Your task to perform on an android device: Open battery settings Image 0: 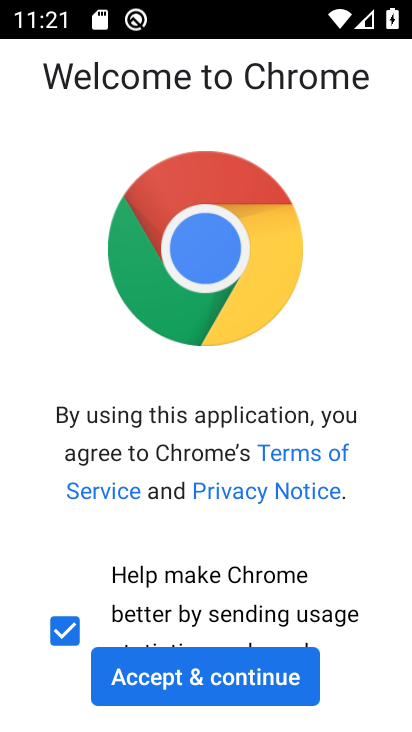
Step 0: press home button
Your task to perform on an android device: Open battery settings Image 1: 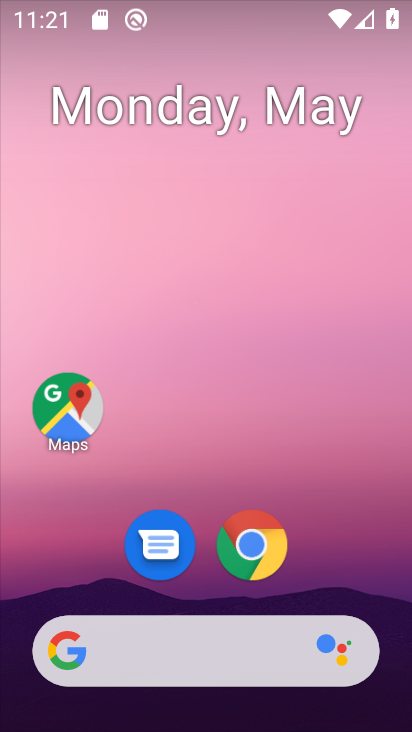
Step 1: drag from (82, 616) to (271, 82)
Your task to perform on an android device: Open battery settings Image 2: 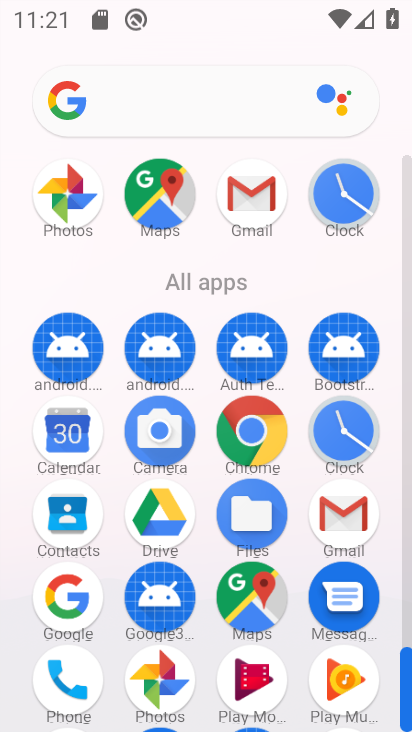
Step 2: drag from (213, 646) to (306, 340)
Your task to perform on an android device: Open battery settings Image 3: 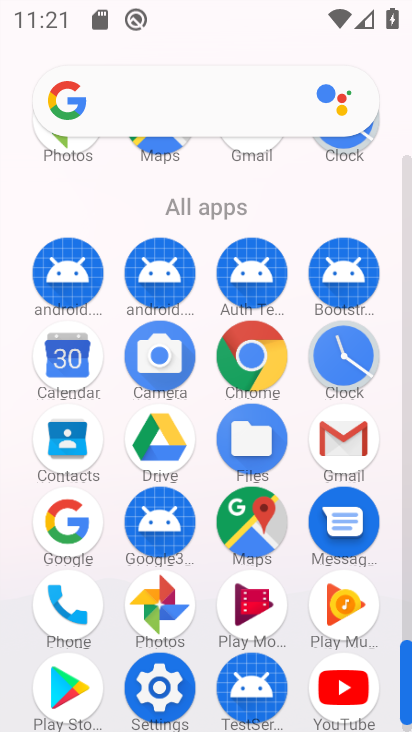
Step 3: click (149, 707)
Your task to perform on an android device: Open battery settings Image 4: 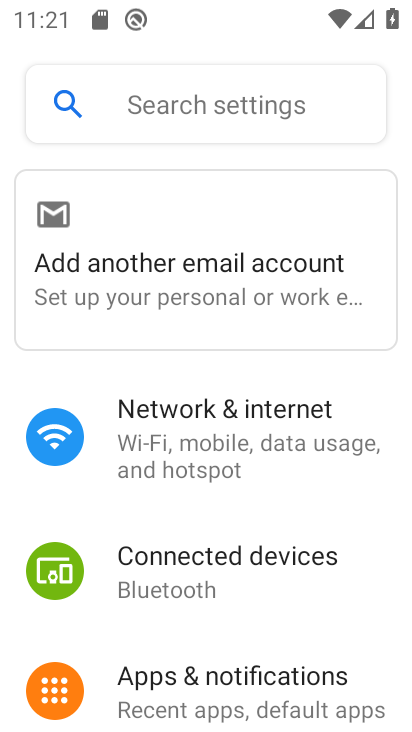
Step 4: drag from (230, 681) to (326, 428)
Your task to perform on an android device: Open battery settings Image 5: 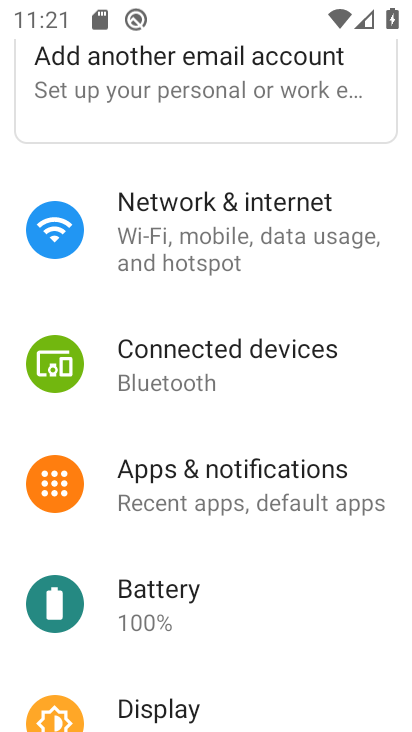
Step 5: click (200, 624)
Your task to perform on an android device: Open battery settings Image 6: 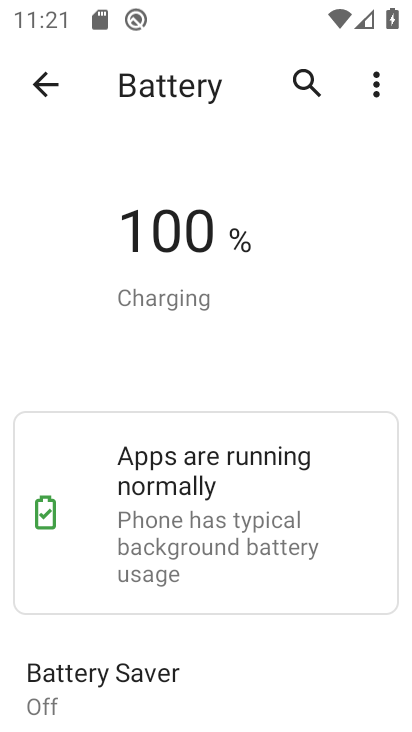
Step 6: task complete